Your task to perform on an android device: open app "Google Sheets" Image 0: 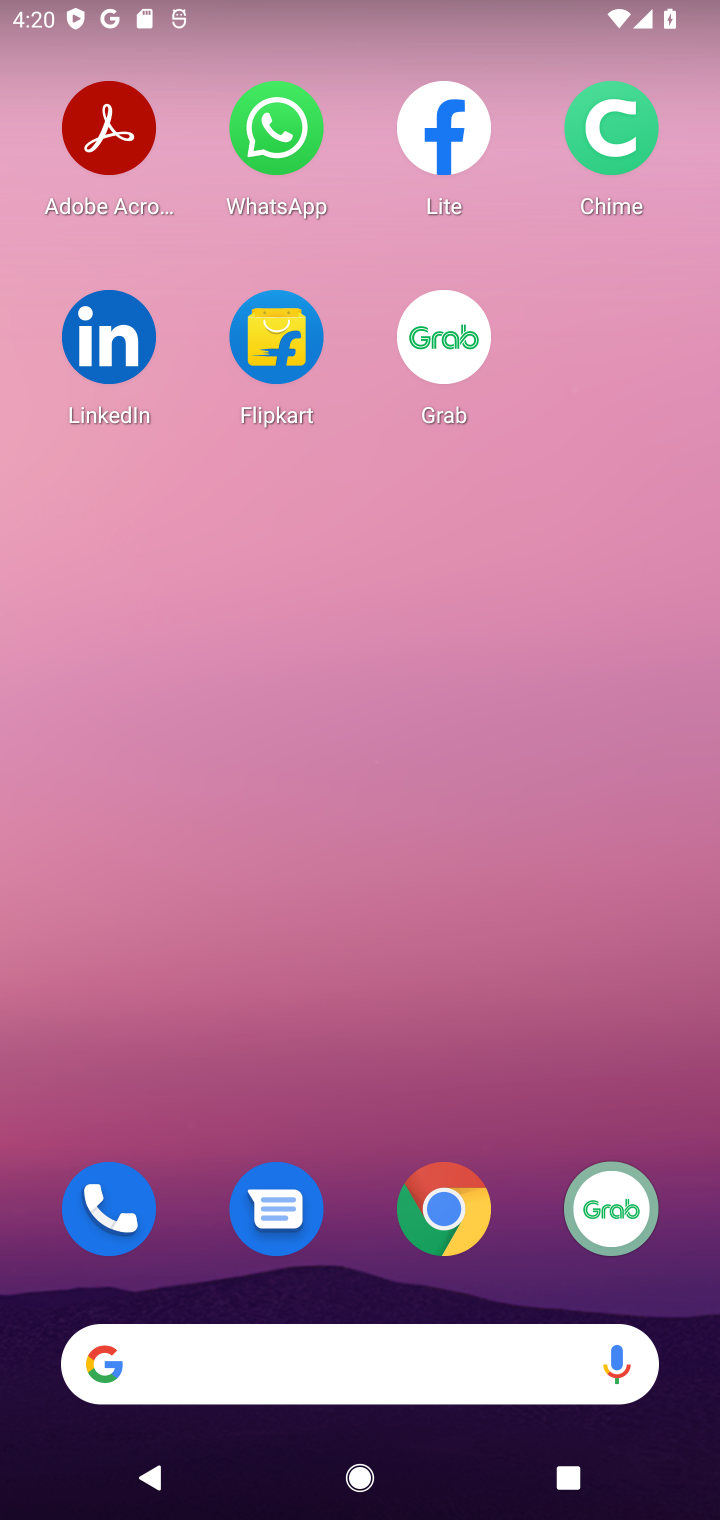
Step 0: drag from (524, 1295) to (423, 14)
Your task to perform on an android device: open app "Google Sheets" Image 1: 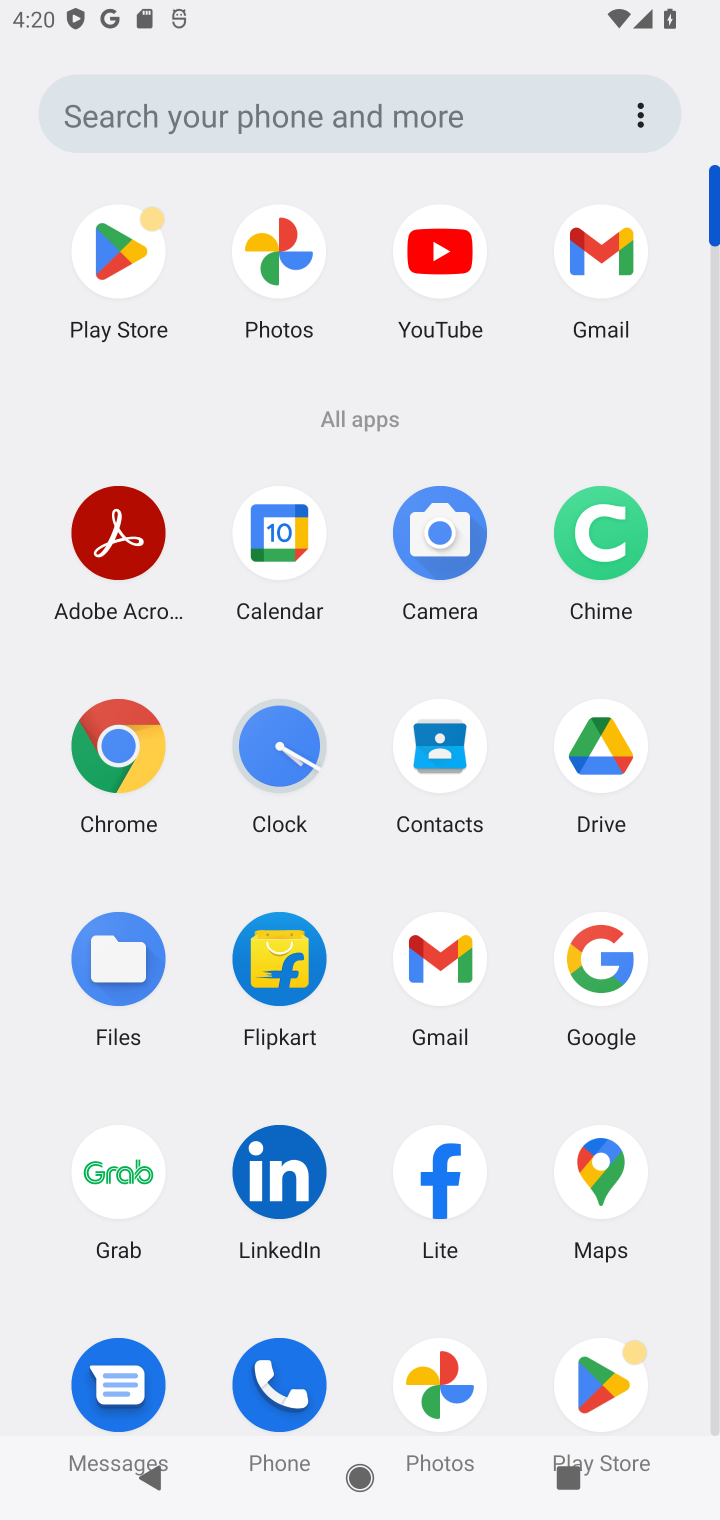
Step 1: click (128, 257)
Your task to perform on an android device: open app "Google Sheets" Image 2: 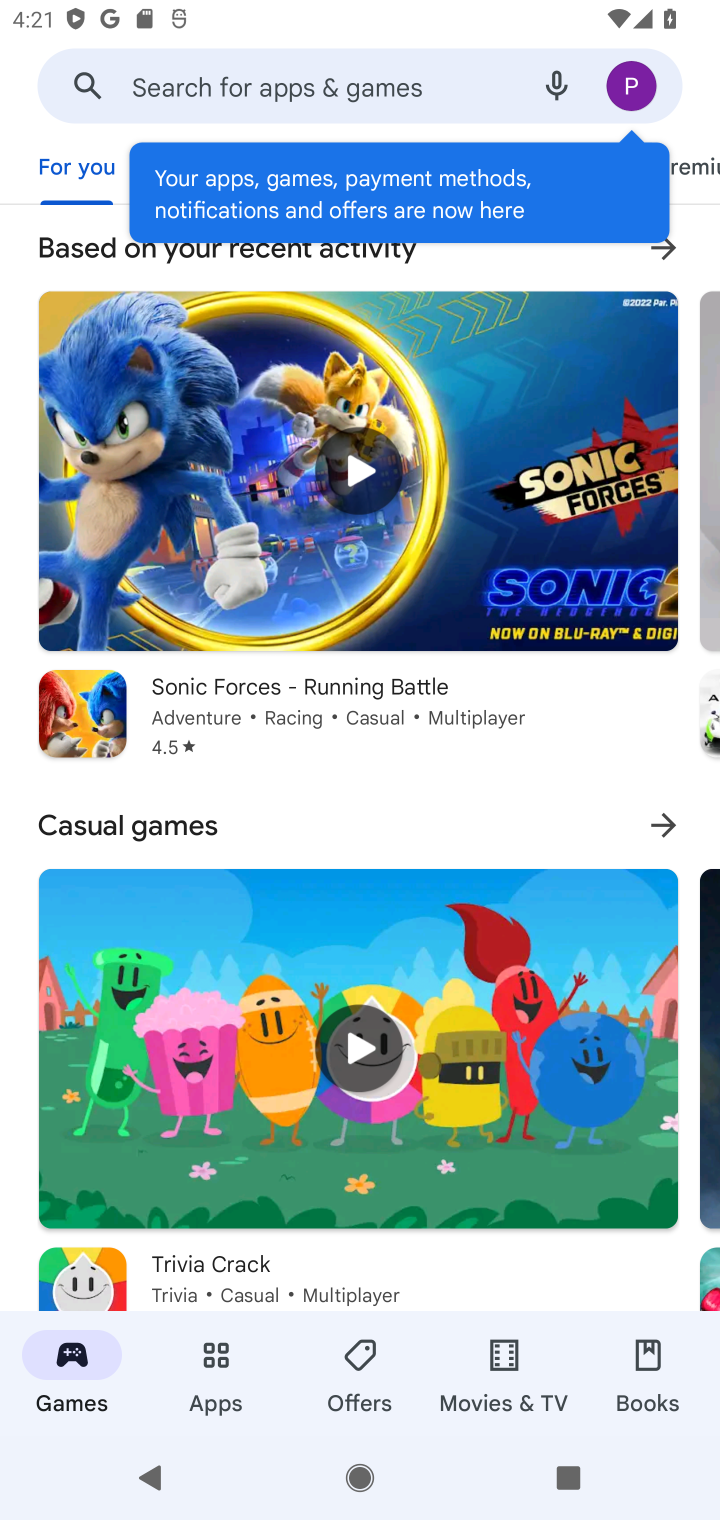
Step 2: click (234, 70)
Your task to perform on an android device: open app "Google Sheets" Image 3: 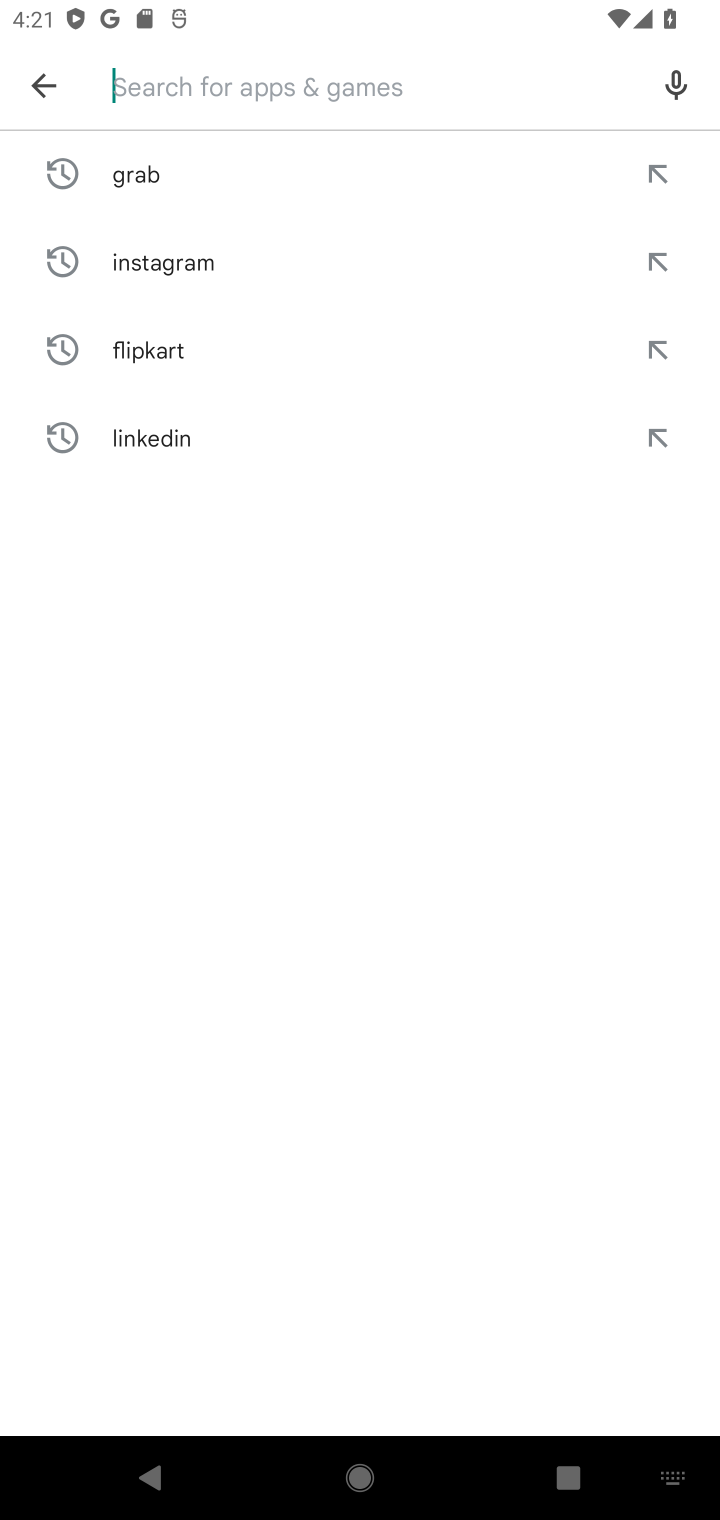
Step 3: type "google sheet"
Your task to perform on an android device: open app "Google Sheets" Image 4: 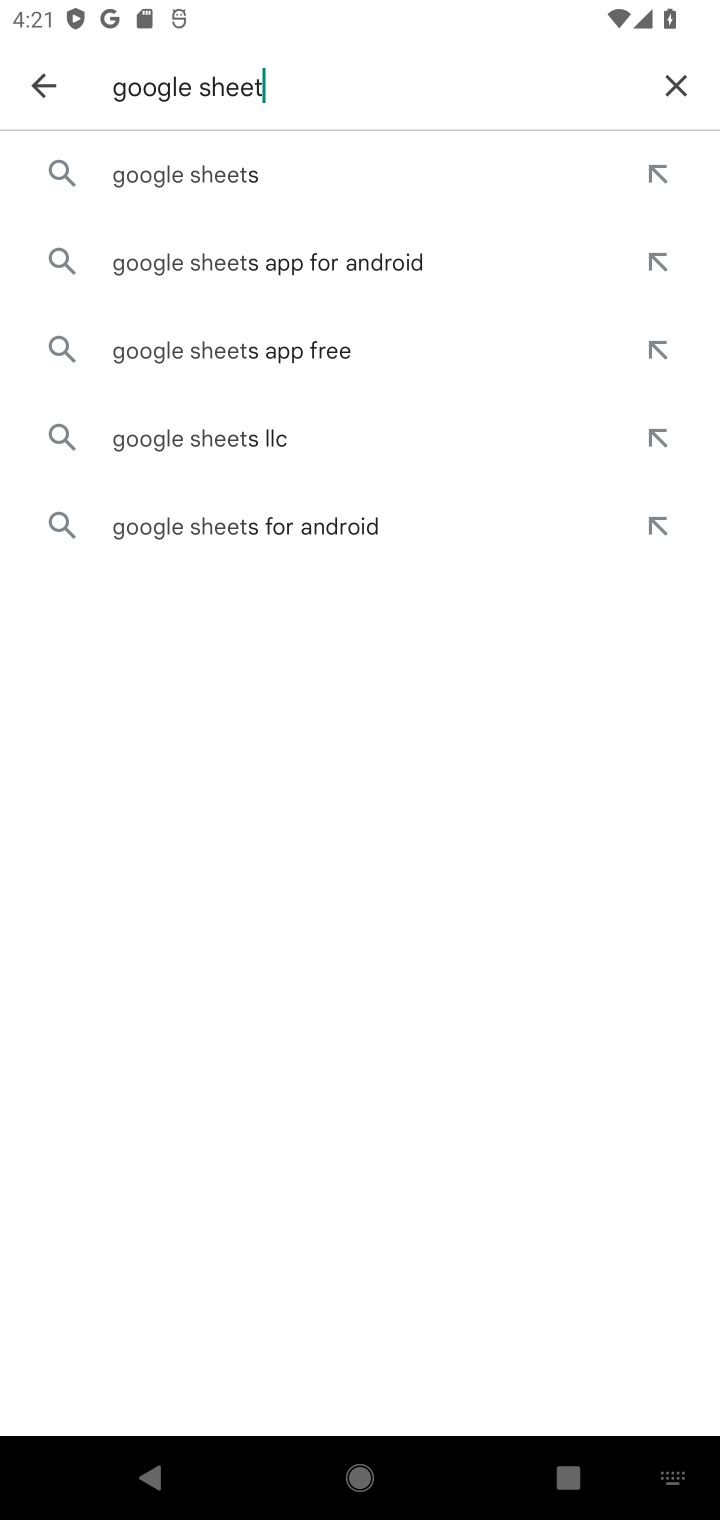
Step 4: click (214, 146)
Your task to perform on an android device: open app "Google Sheets" Image 5: 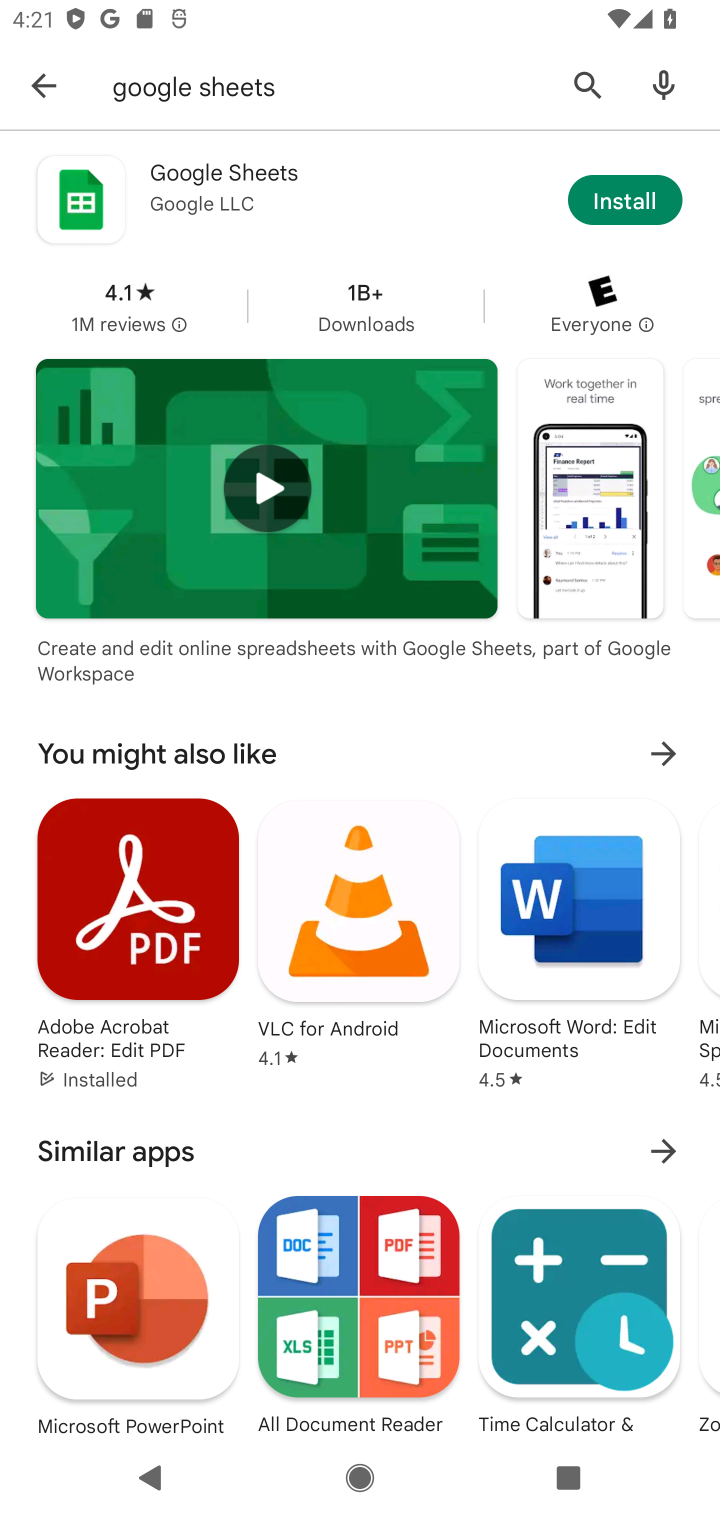
Step 5: click (665, 186)
Your task to perform on an android device: open app "Google Sheets" Image 6: 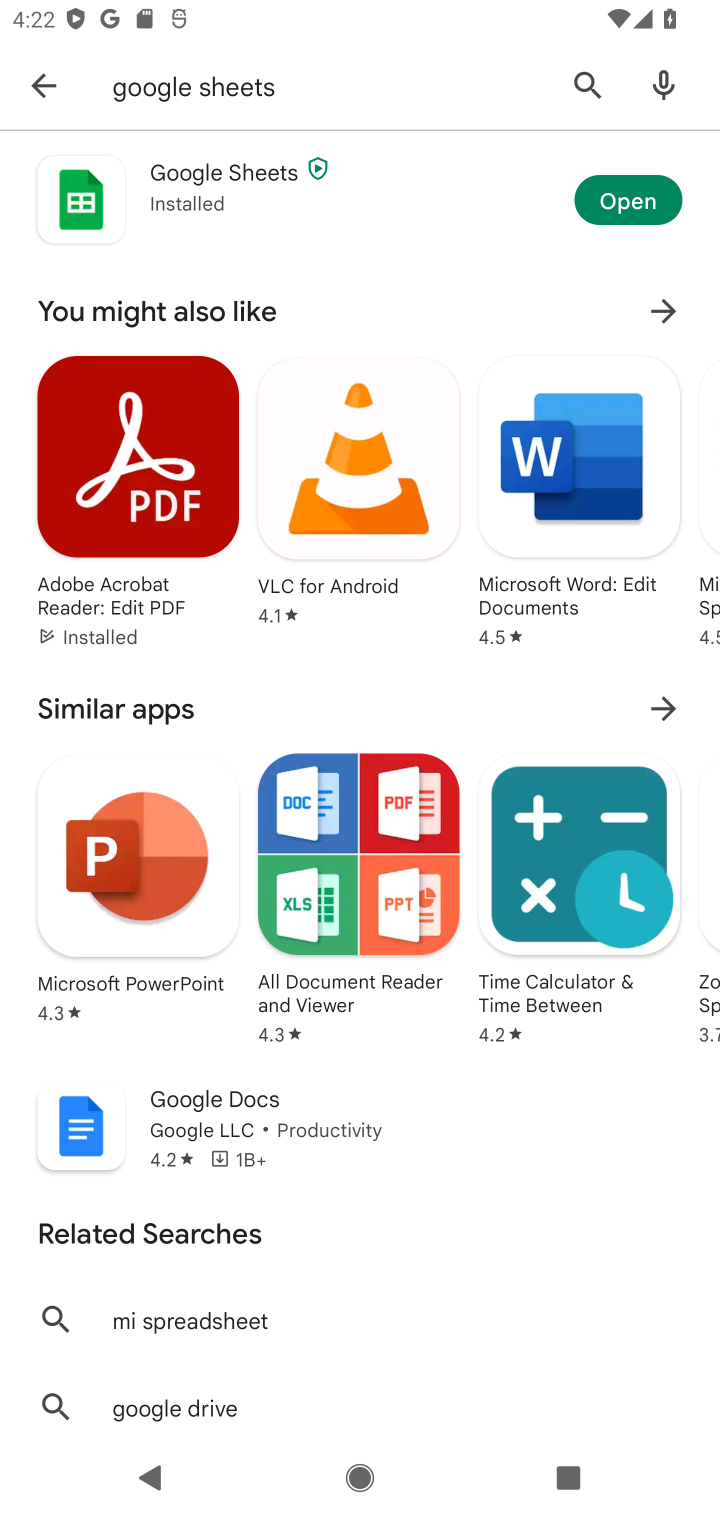
Step 6: click (666, 186)
Your task to perform on an android device: open app "Google Sheets" Image 7: 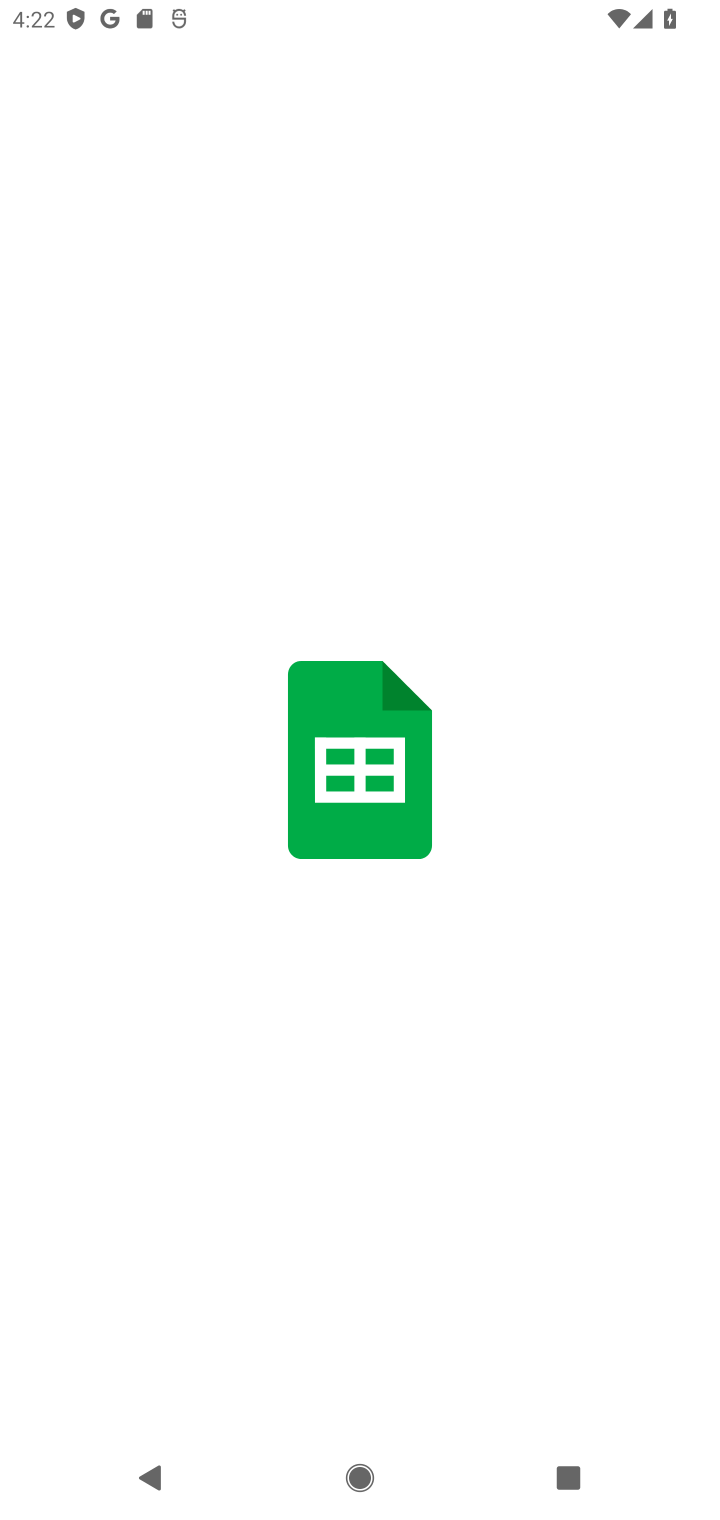
Step 7: task complete